Your task to perform on an android device: change the clock style Image 0: 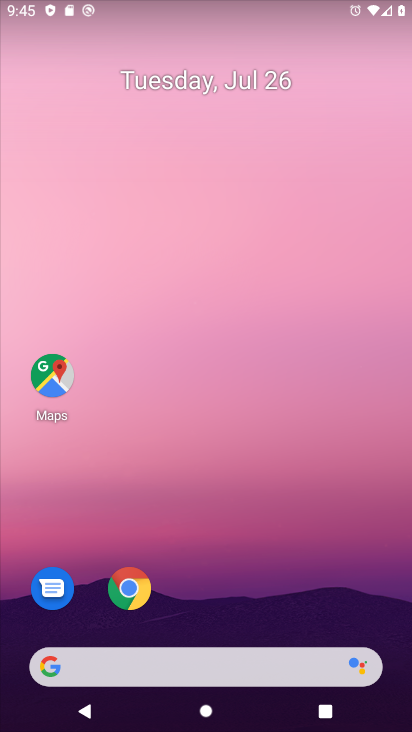
Step 0: drag from (250, 405) to (252, 41)
Your task to perform on an android device: change the clock style Image 1: 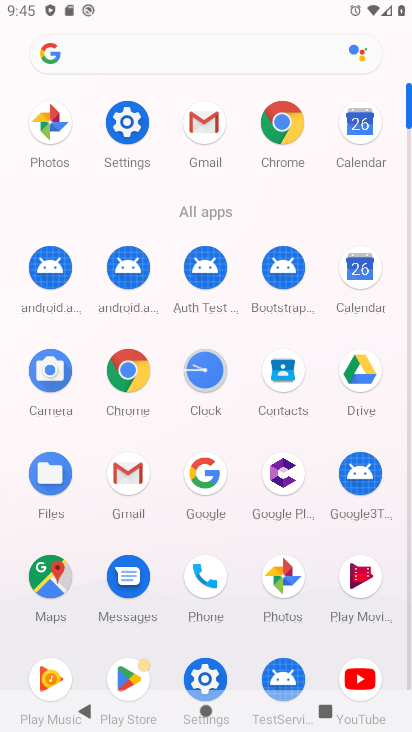
Step 1: click (218, 363)
Your task to perform on an android device: change the clock style Image 2: 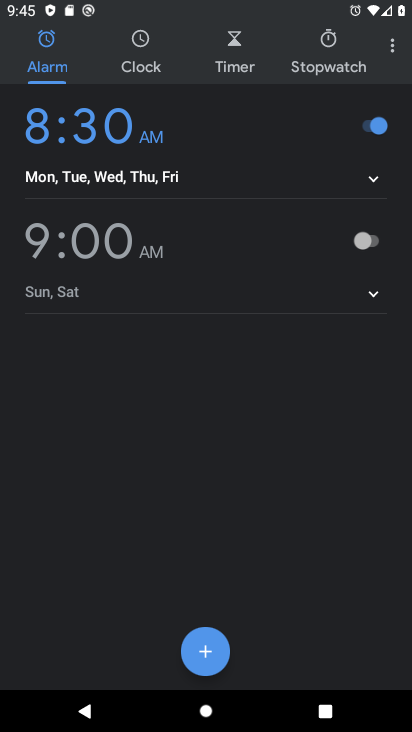
Step 2: click (390, 47)
Your task to perform on an android device: change the clock style Image 3: 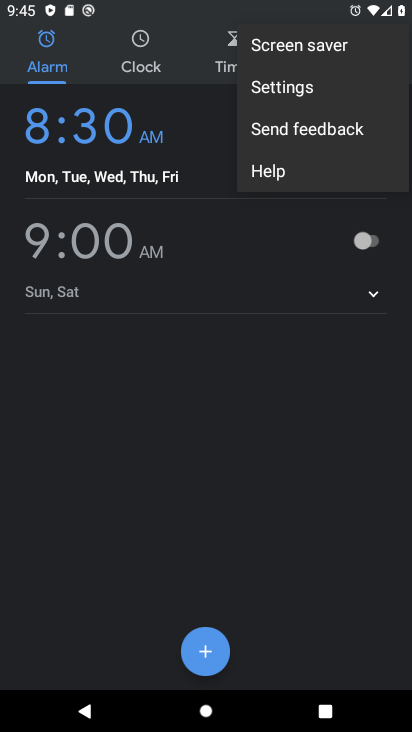
Step 3: click (326, 82)
Your task to perform on an android device: change the clock style Image 4: 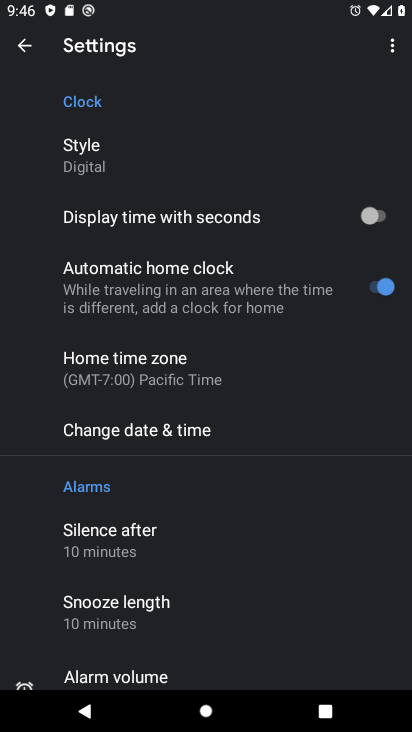
Step 4: click (102, 139)
Your task to perform on an android device: change the clock style Image 5: 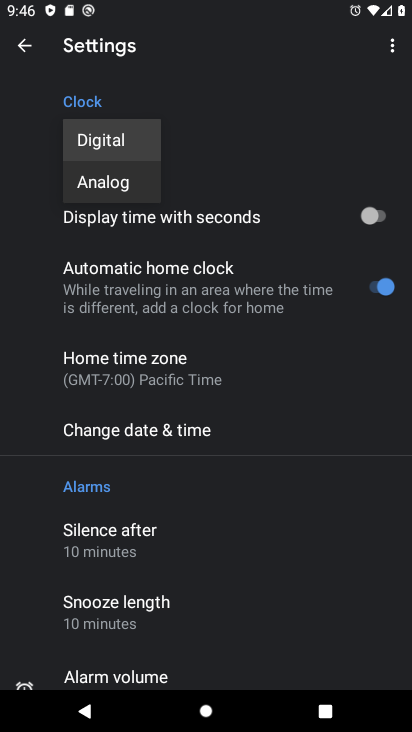
Step 5: click (106, 177)
Your task to perform on an android device: change the clock style Image 6: 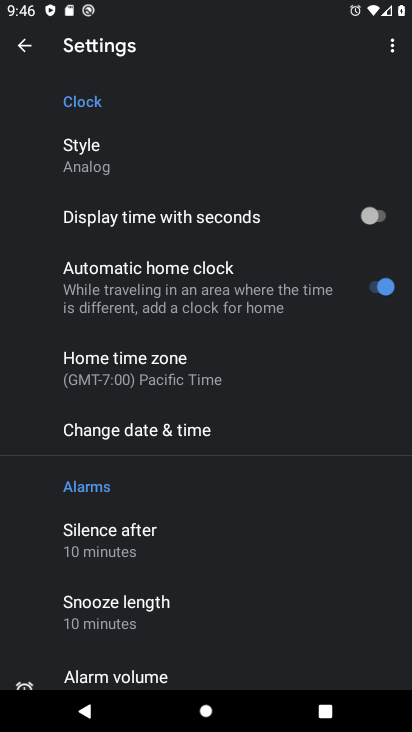
Step 6: task complete